Your task to perform on an android device: Go to CNN.com Image 0: 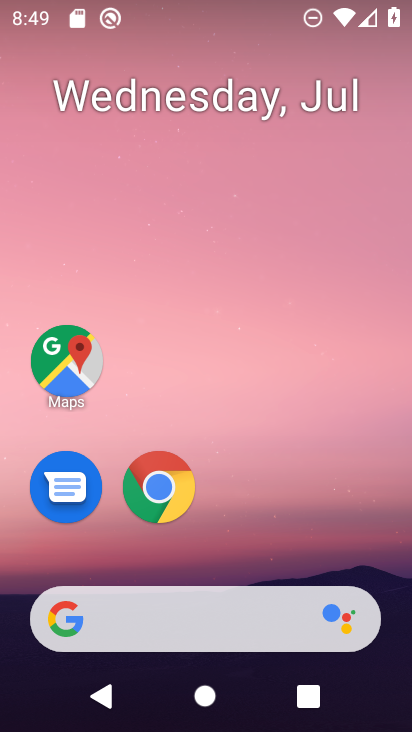
Step 0: drag from (346, 532) to (387, 122)
Your task to perform on an android device: Go to CNN.com Image 1: 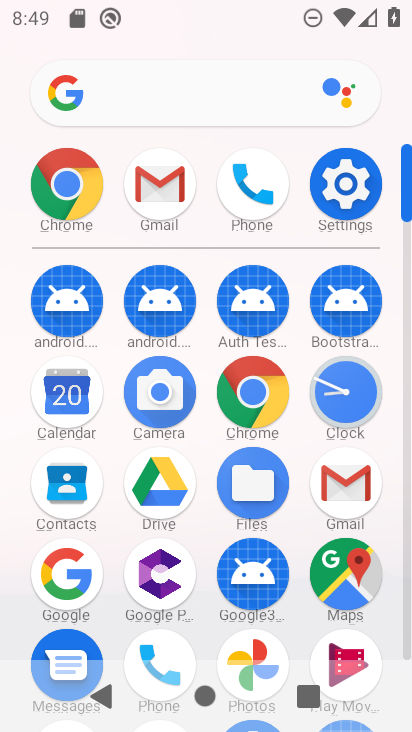
Step 1: click (275, 390)
Your task to perform on an android device: Go to CNN.com Image 2: 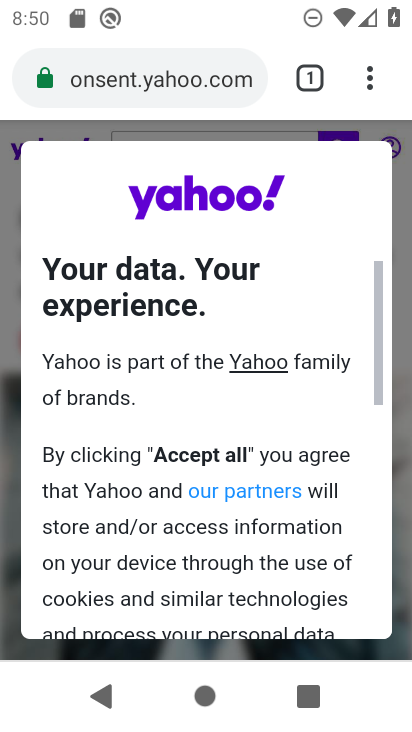
Step 2: click (162, 82)
Your task to perform on an android device: Go to CNN.com Image 3: 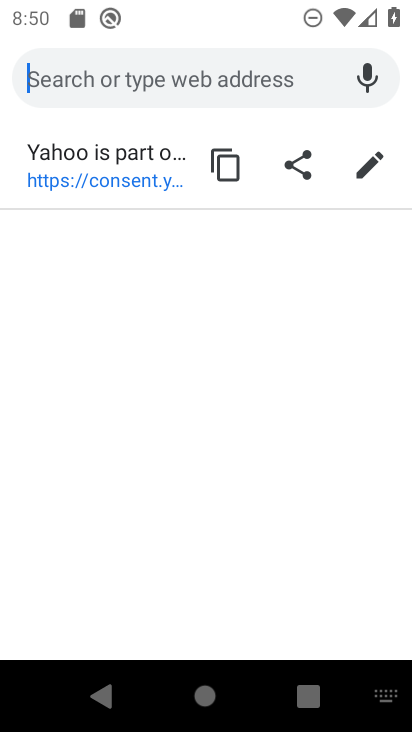
Step 3: type "cnn.com"
Your task to perform on an android device: Go to CNN.com Image 4: 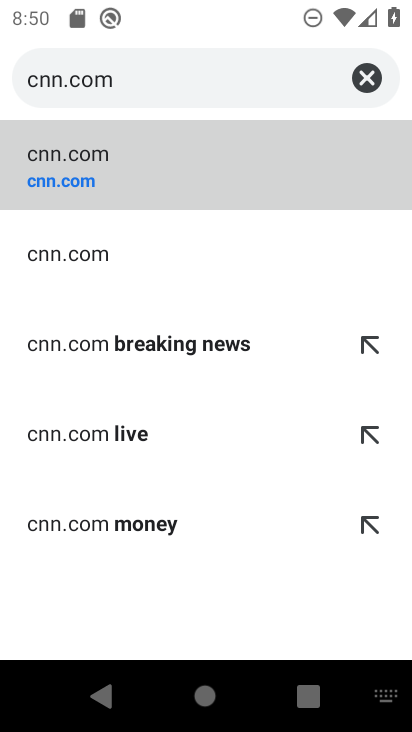
Step 4: click (355, 165)
Your task to perform on an android device: Go to CNN.com Image 5: 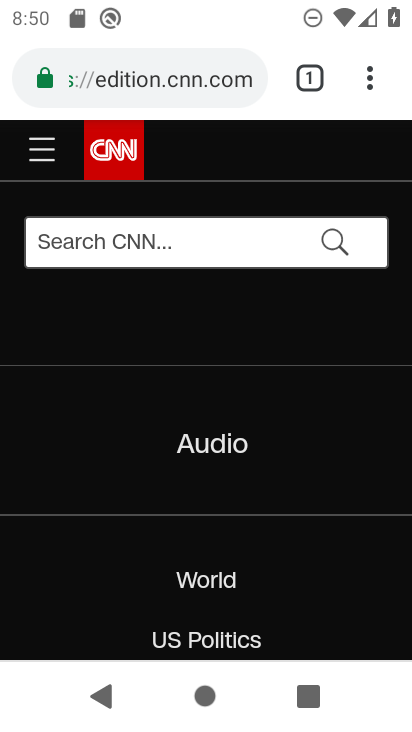
Step 5: task complete